Your task to perform on an android device: Toggle the flashlight Image 0: 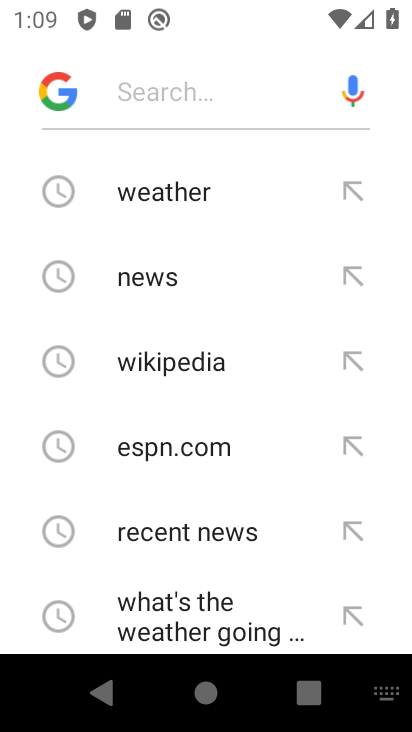
Step 0: press back button
Your task to perform on an android device: Toggle the flashlight Image 1: 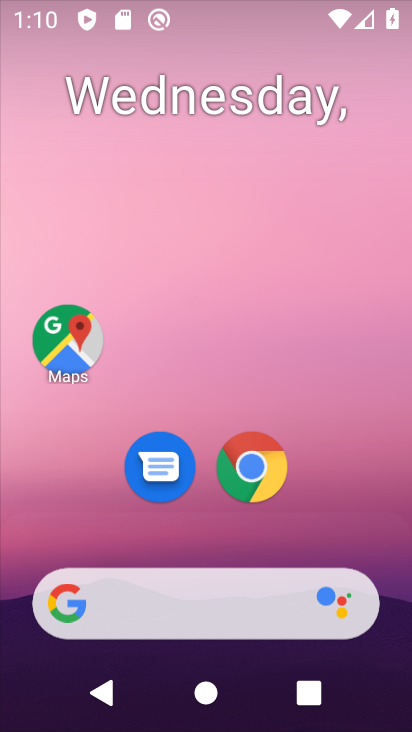
Step 1: task complete